Your task to perform on an android device: Go to Reddit.com Image 0: 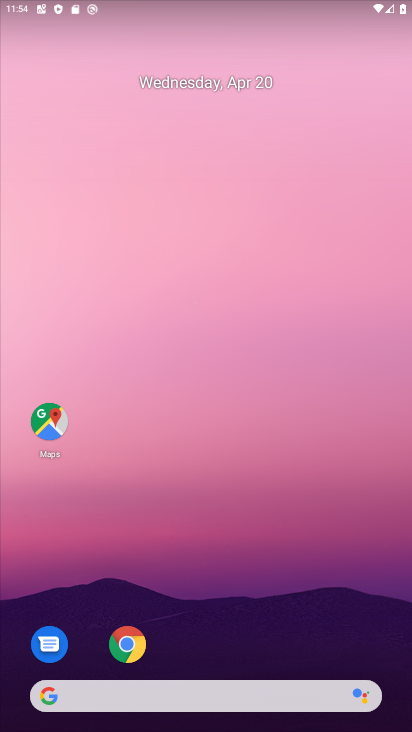
Step 0: click (127, 645)
Your task to perform on an android device: Go to Reddit.com Image 1: 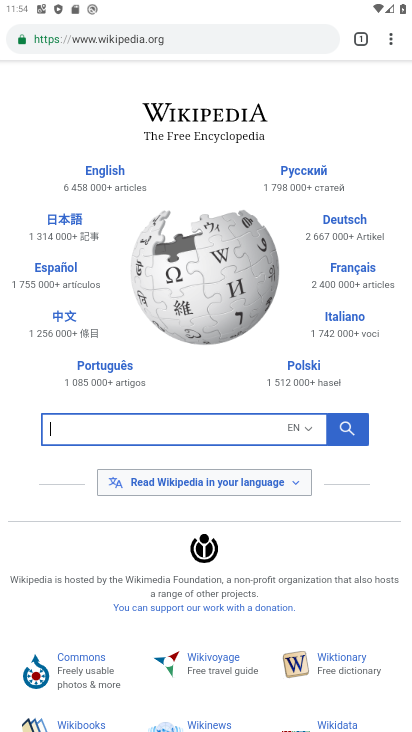
Step 1: click (177, 41)
Your task to perform on an android device: Go to Reddit.com Image 2: 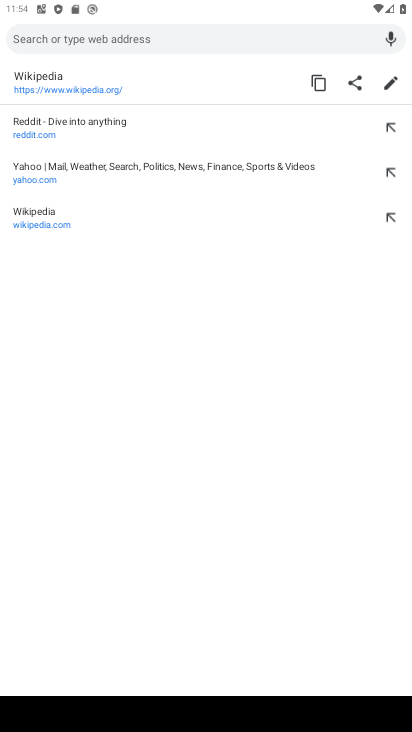
Step 2: type "reddit.com"
Your task to perform on an android device: Go to Reddit.com Image 3: 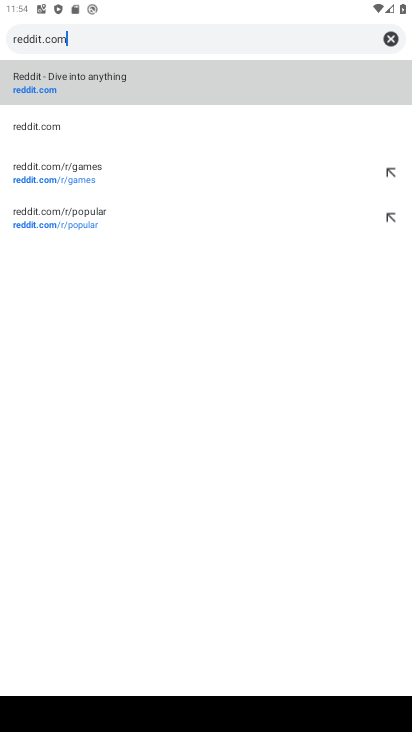
Step 3: click (79, 83)
Your task to perform on an android device: Go to Reddit.com Image 4: 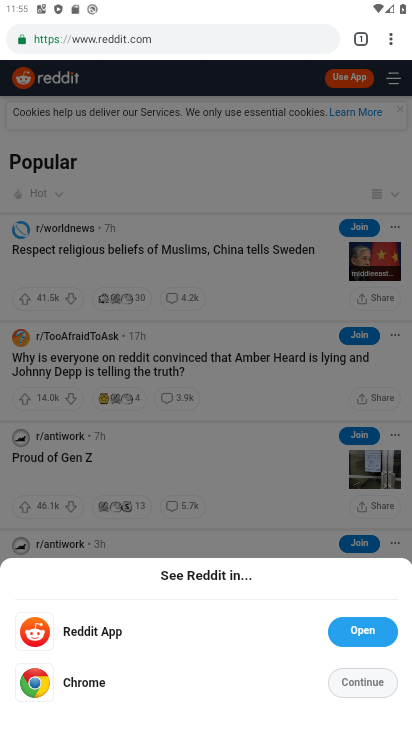
Step 4: task complete